Your task to perform on an android device: turn on airplane mode Image 0: 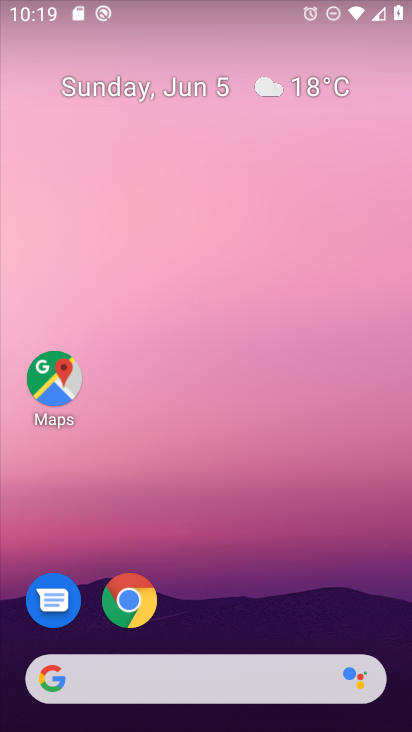
Step 0: drag from (270, 571) to (235, 34)
Your task to perform on an android device: turn on airplane mode Image 1: 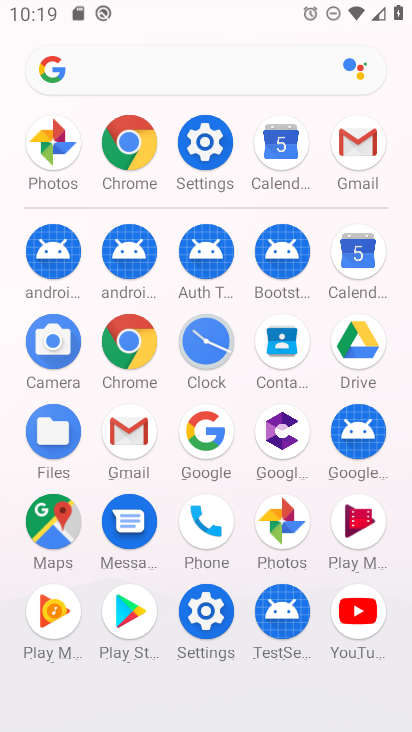
Step 1: click (212, 129)
Your task to perform on an android device: turn on airplane mode Image 2: 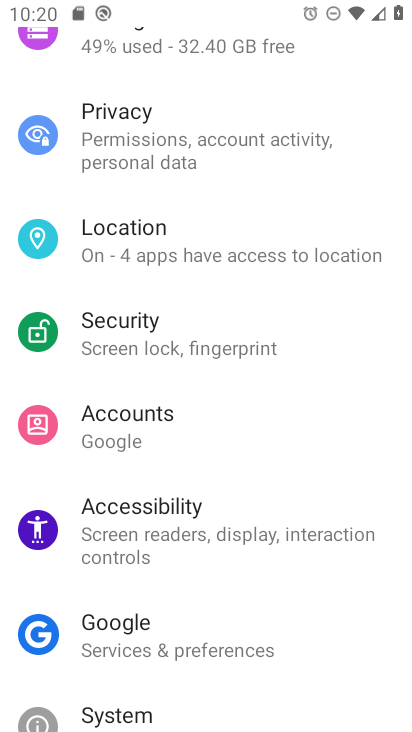
Step 2: drag from (211, 197) to (261, 642)
Your task to perform on an android device: turn on airplane mode Image 3: 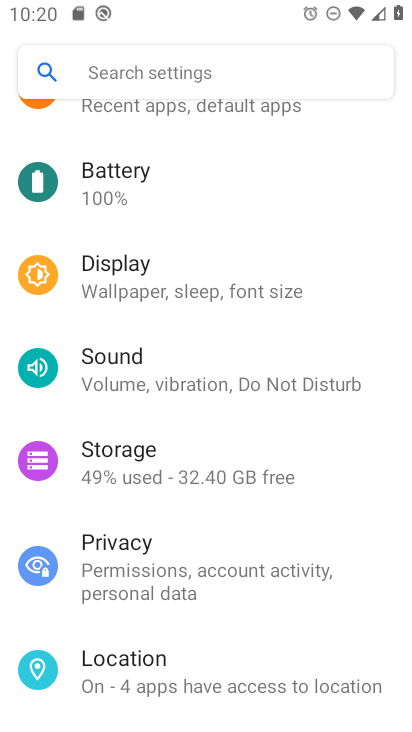
Step 3: drag from (211, 218) to (208, 554)
Your task to perform on an android device: turn on airplane mode Image 4: 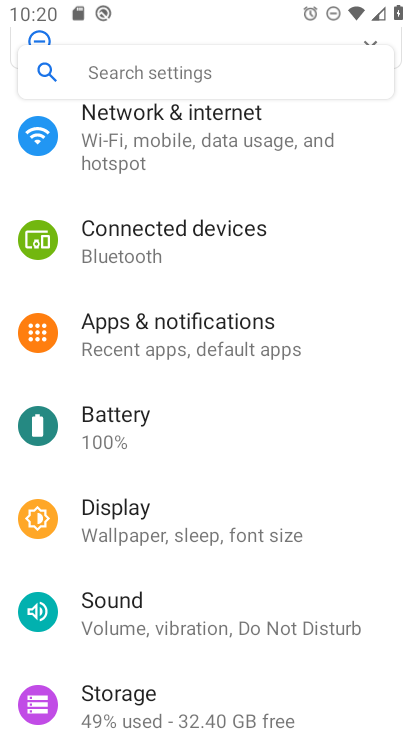
Step 4: click (173, 137)
Your task to perform on an android device: turn on airplane mode Image 5: 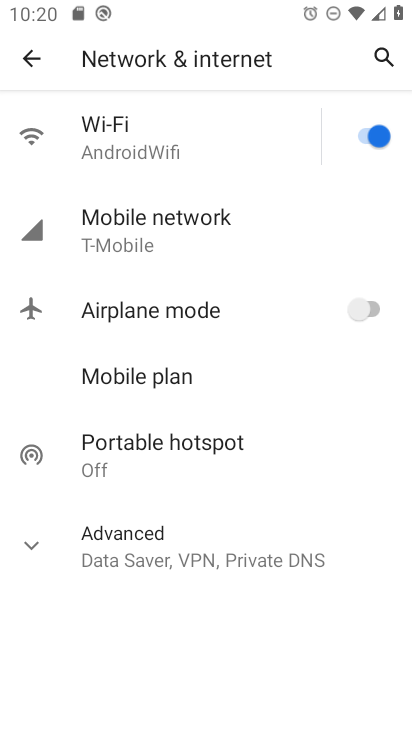
Step 5: click (363, 309)
Your task to perform on an android device: turn on airplane mode Image 6: 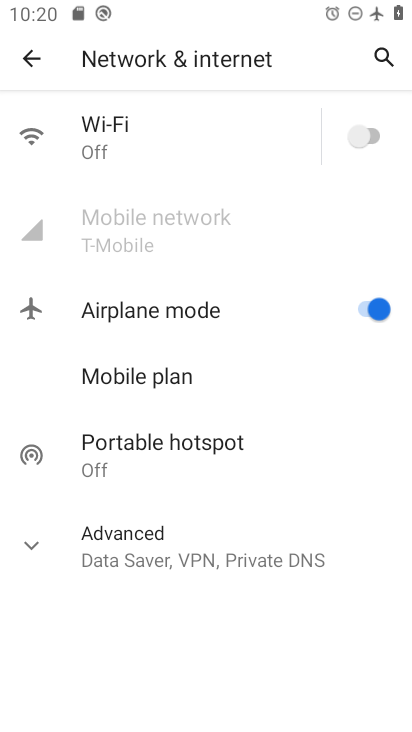
Step 6: task complete